Your task to perform on an android device: Open Google Chrome Image 0: 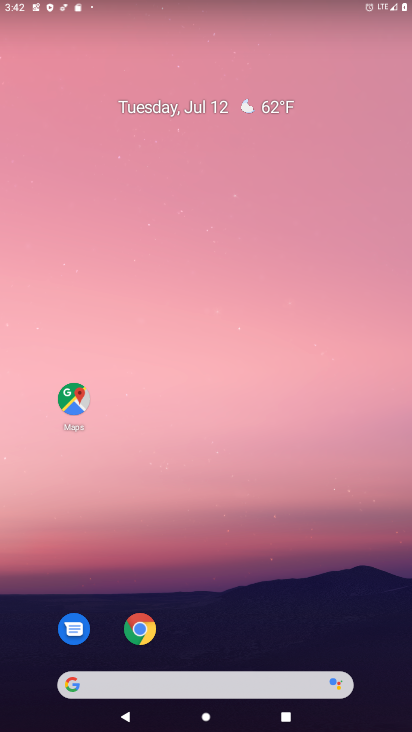
Step 0: drag from (211, 657) to (166, 102)
Your task to perform on an android device: Open Google Chrome Image 1: 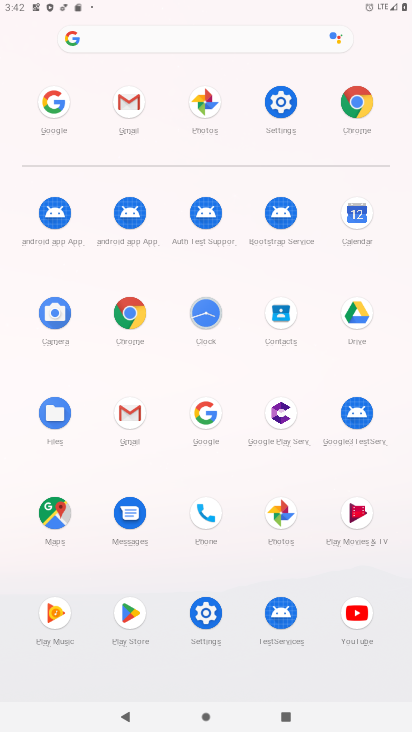
Step 1: click (131, 328)
Your task to perform on an android device: Open Google Chrome Image 2: 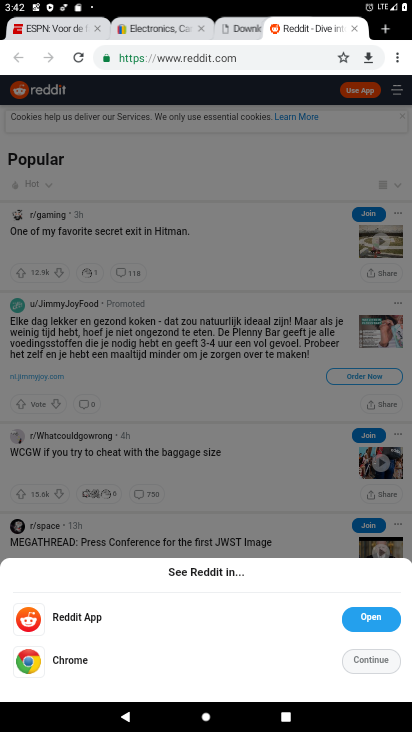
Step 2: click (353, 663)
Your task to perform on an android device: Open Google Chrome Image 3: 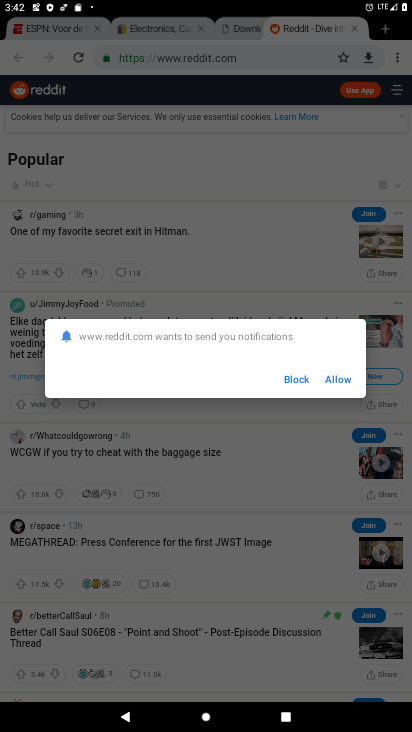
Step 3: click (332, 372)
Your task to perform on an android device: Open Google Chrome Image 4: 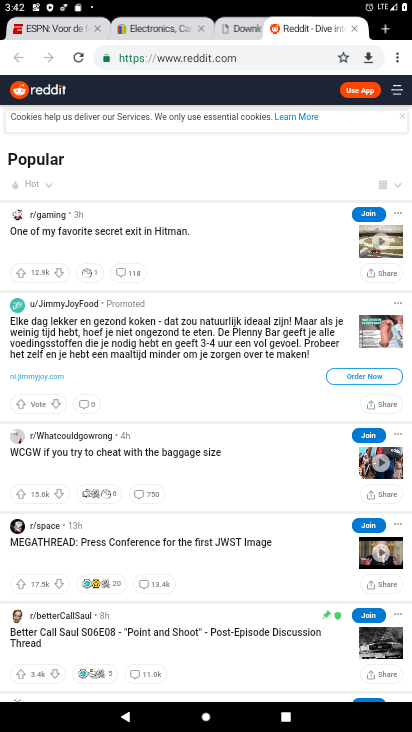
Step 4: task complete